Your task to perform on an android device: What's the weather? Image 0: 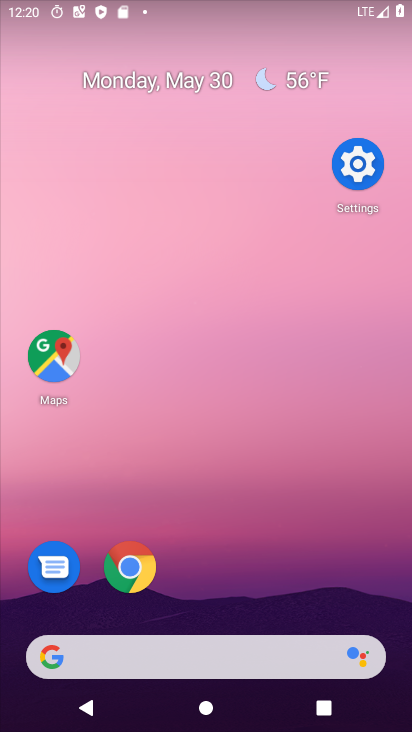
Step 0: drag from (292, 555) to (211, 152)
Your task to perform on an android device: What's the weather? Image 1: 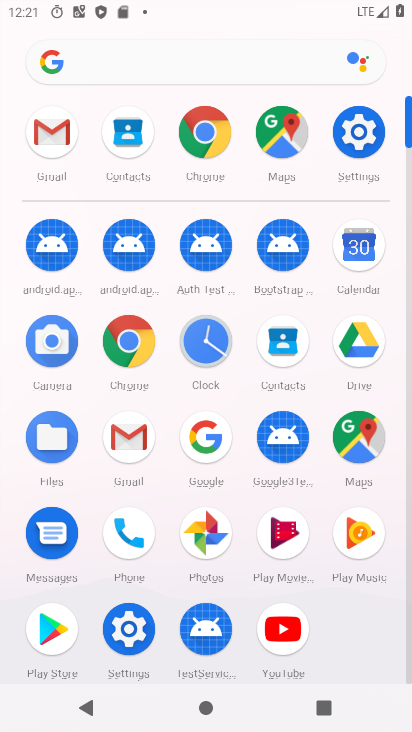
Step 1: click (133, 363)
Your task to perform on an android device: What's the weather? Image 2: 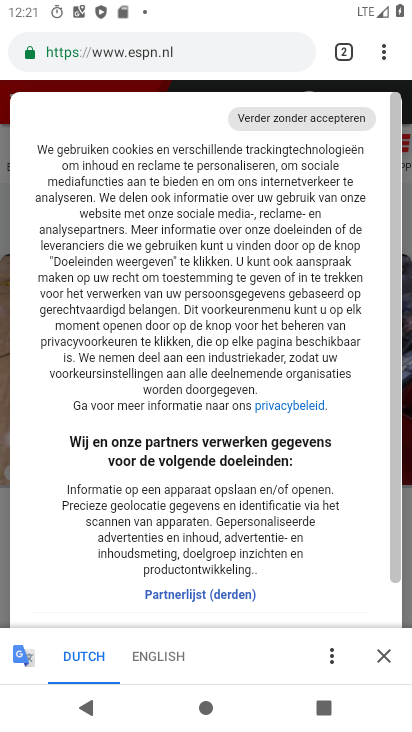
Step 2: click (345, 50)
Your task to perform on an android device: What's the weather? Image 3: 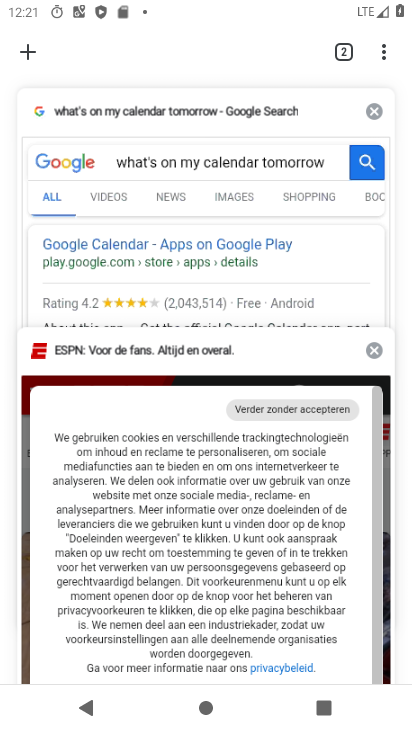
Step 3: click (32, 52)
Your task to perform on an android device: What's the weather? Image 4: 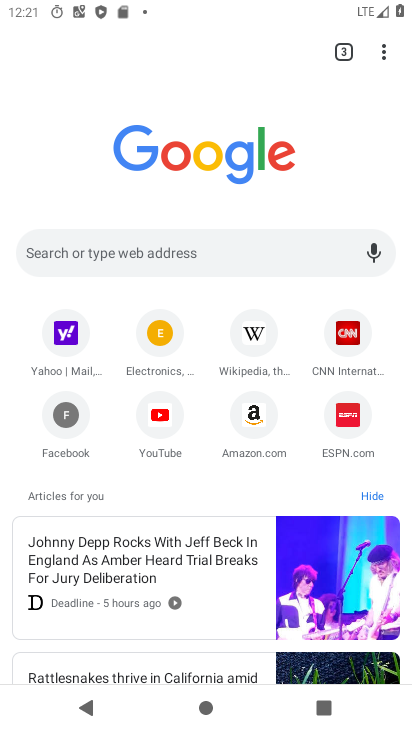
Step 4: click (167, 260)
Your task to perform on an android device: What's the weather? Image 5: 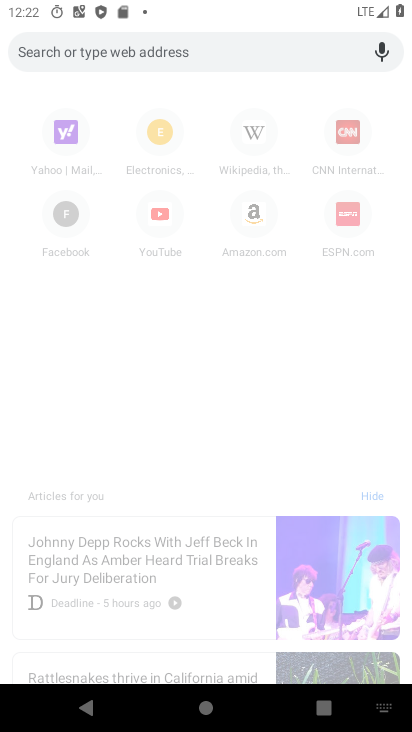
Step 5: type "what's the weather "
Your task to perform on an android device: What's the weather? Image 6: 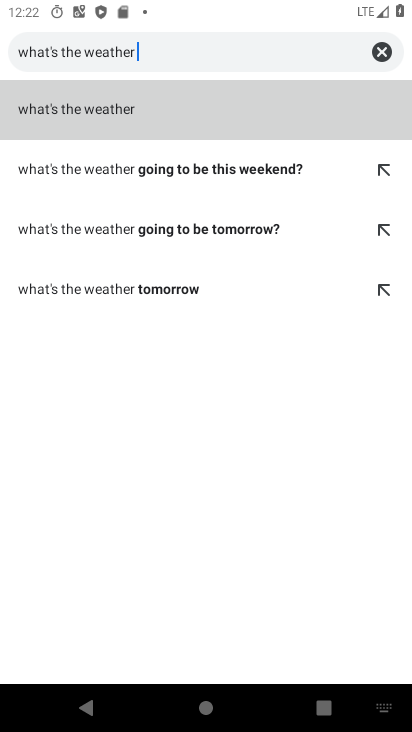
Step 6: click (119, 110)
Your task to perform on an android device: What's the weather? Image 7: 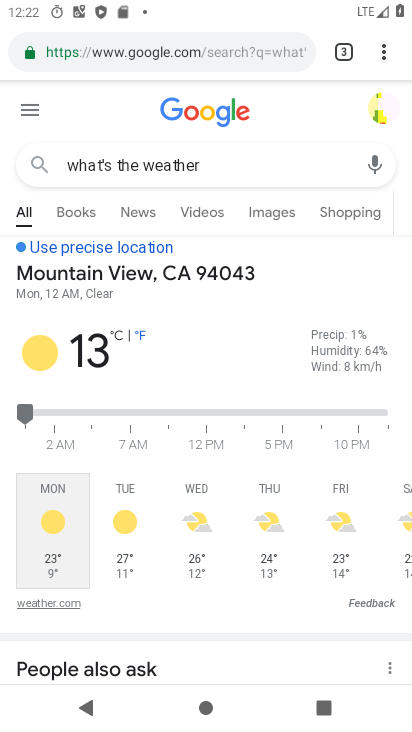
Step 7: task complete